Your task to perform on an android device: Open internet settings Image 0: 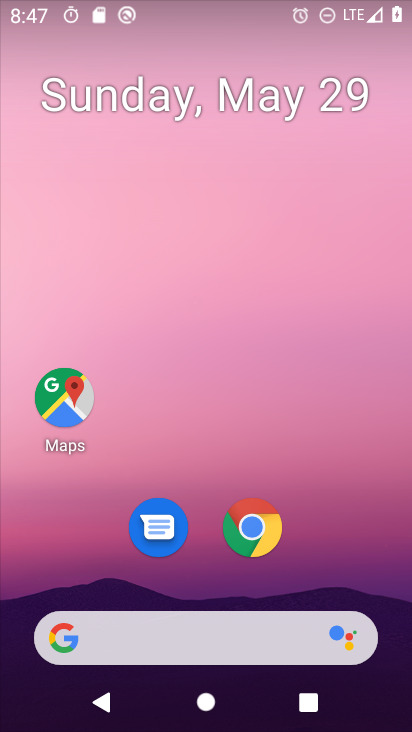
Step 0: drag from (372, 607) to (312, 85)
Your task to perform on an android device: Open internet settings Image 1: 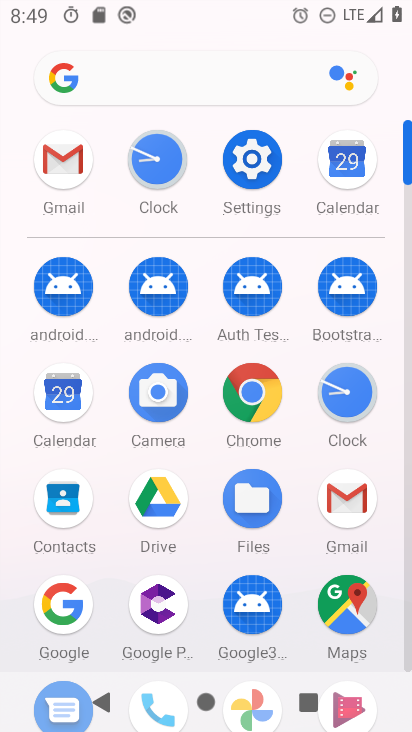
Step 1: click (266, 143)
Your task to perform on an android device: Open internet settings Image 2: 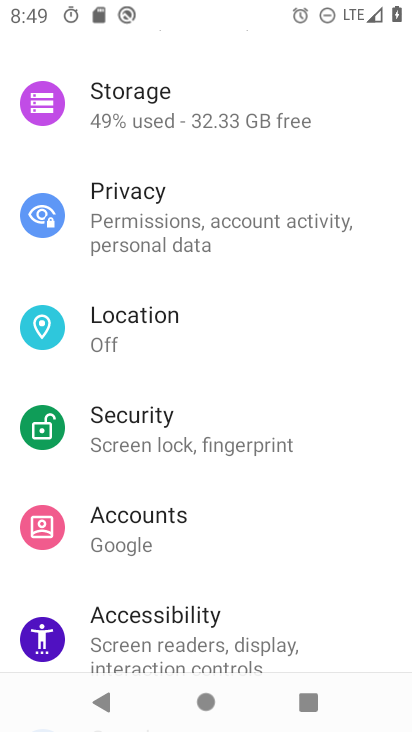
Step 2: drag from (190, 121) to (241, 677)
Your task to perform on an android device: Open internet settings Image 3: 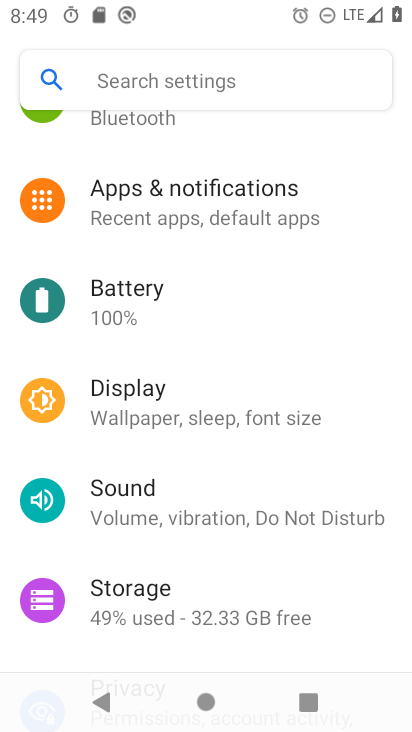
Step 3: drag from (191, 206) to (291, 644)
Your task to perform on an android device: Open internet settings Image 4: 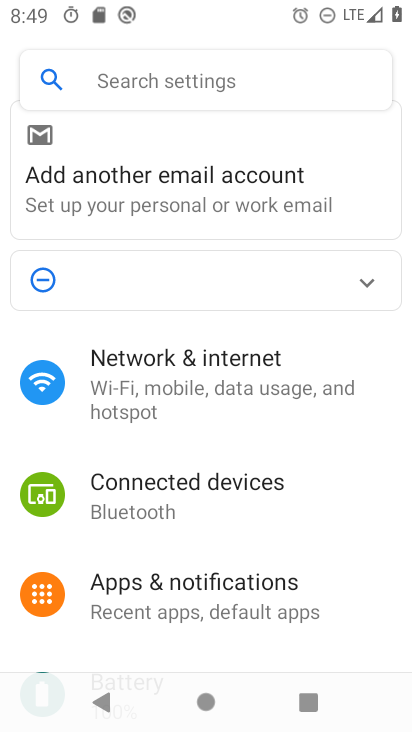
Step 4: click (233, 367)
Your task to perform on an android device: Open internet settings Image 5: 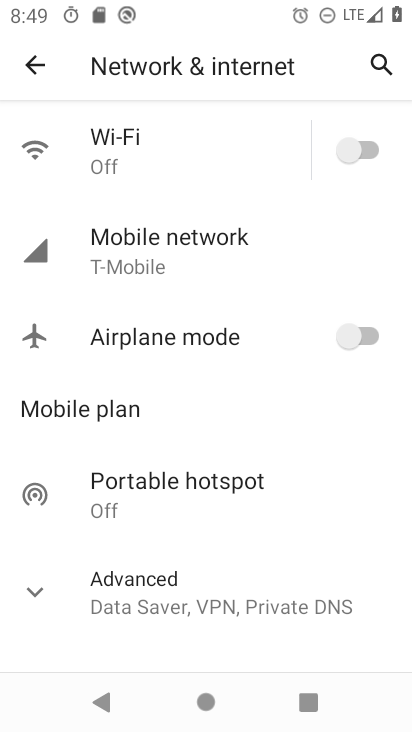
Step 5: task complete